Your task to perform on an android device: open chrome and create a bookmark for the current page Image 0: 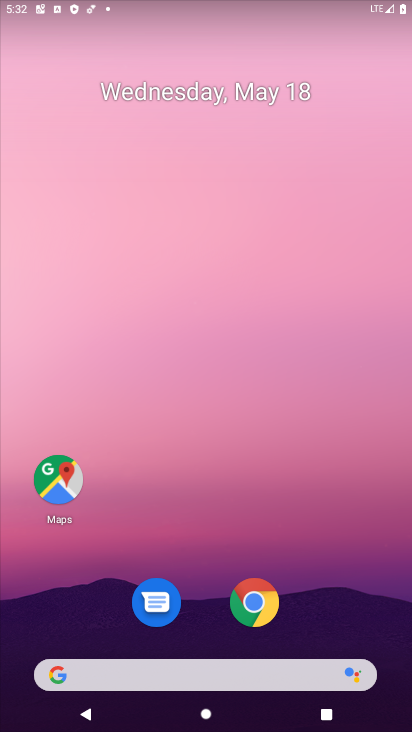
Step 0: drag from (292, 667) to (340, 35)
Your task to perform on an android device: open chrome and create a bookmark for the current page Image 1: 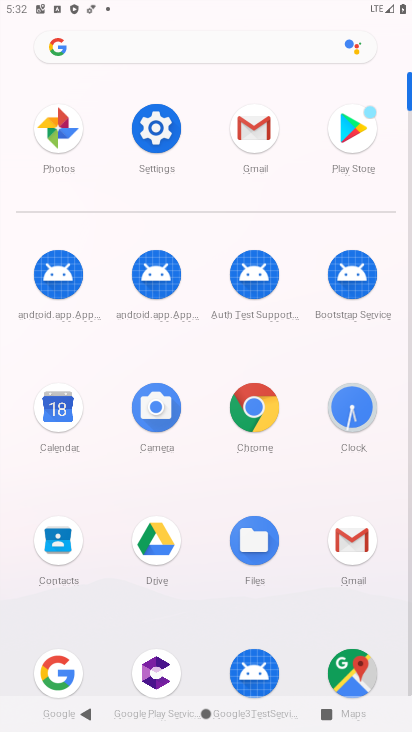
Step 1: click (277, 414)
Your task to perform on an android device: open chrome and create a bookmark for the current page Image 2: 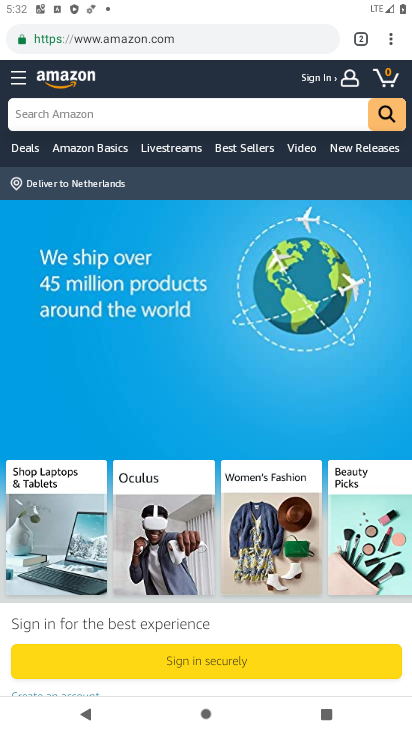
Step 2: click (391, 35)
Your task to perform on an android device: open chrome and create a bookmark for the current page Image 3: 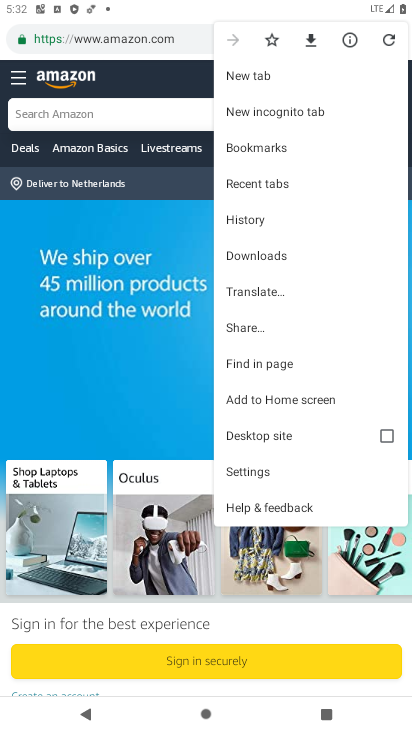
Step 3: click (157, 62)
Your task to perform on an android device: open chrome and create a bookmark for the current page Image 4: 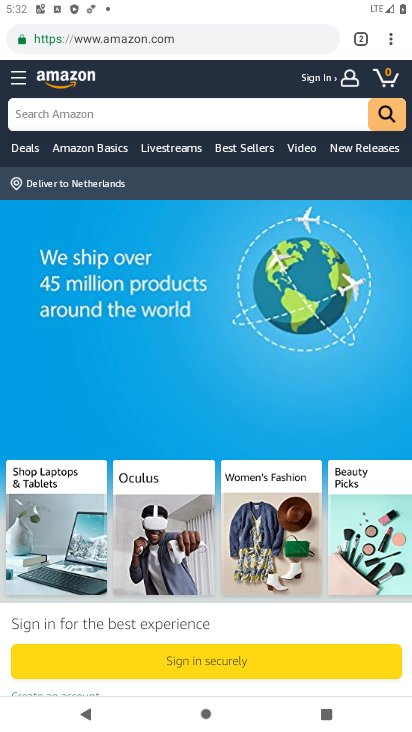
Step 4: click (391, 41)
Your task to perform on an android device: open chrome and create a bookmark for the current page Image 5: 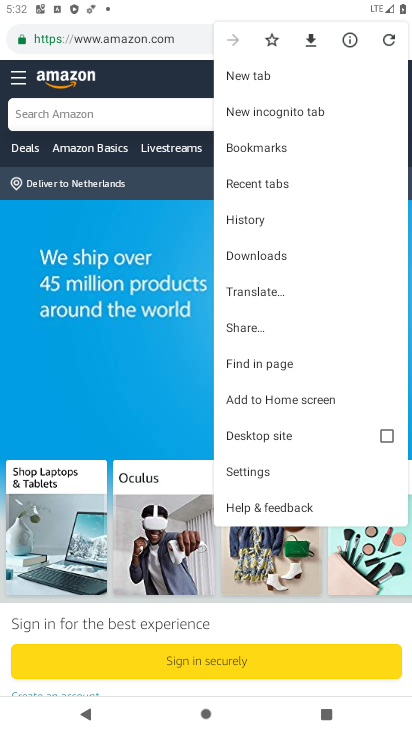
Step 5: click (272, 39)
Your task to perform on an android device: open chrome and create a bookmark for the current page Image 6: 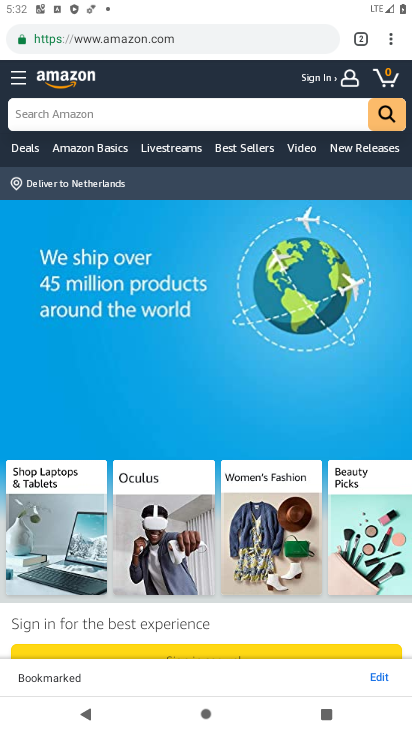
Step 6: task complete